Your task to perform on an android device: Open calendar and show me the first week of next month Image 0: 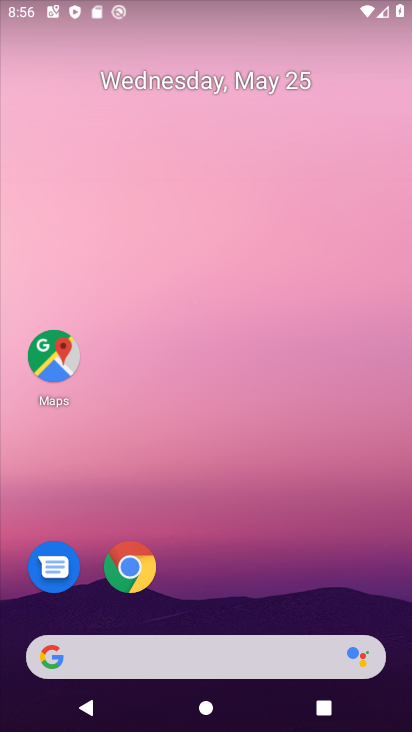
Step 0: drag from (251, 485) to (253, 62)
Your task to perform on an android device: Open calendar and show me the first week of next month Image 1: 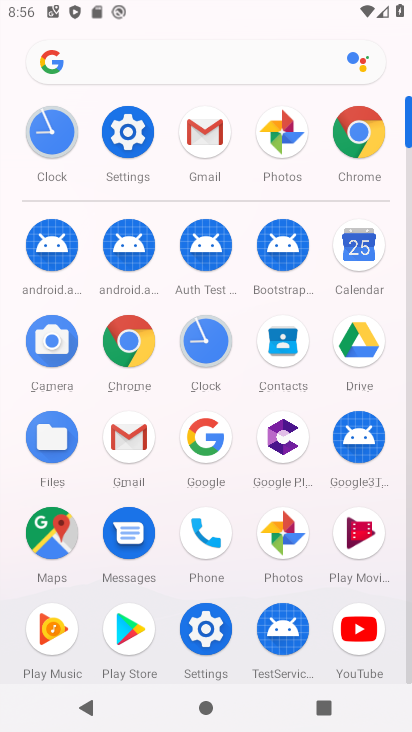
Step 1: click (360, 255)
Your task to perform on an android device: Open calendar and show me the first week of next month Image 2: 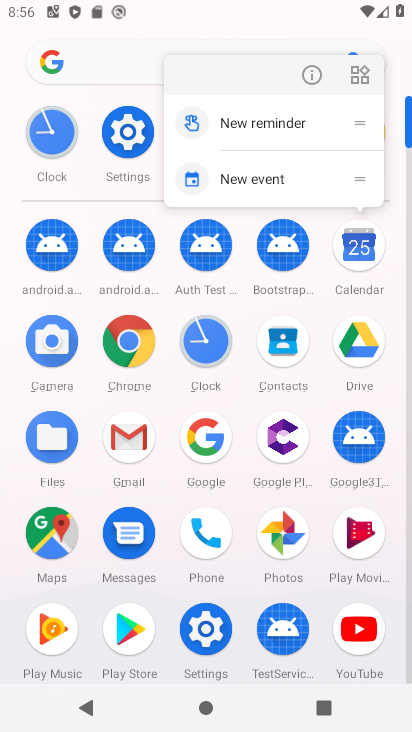
Step 2: click (362, 247)
Your task to perform on an android device: Open calendar and show me the first week of next month Image 3: 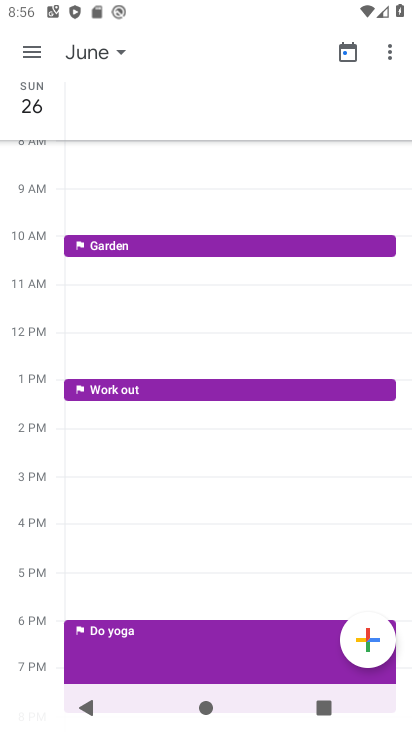
Step 3: click (28, 39)
Your task to perform on an android device: Open calendar and show me the first week of next month Image 4: 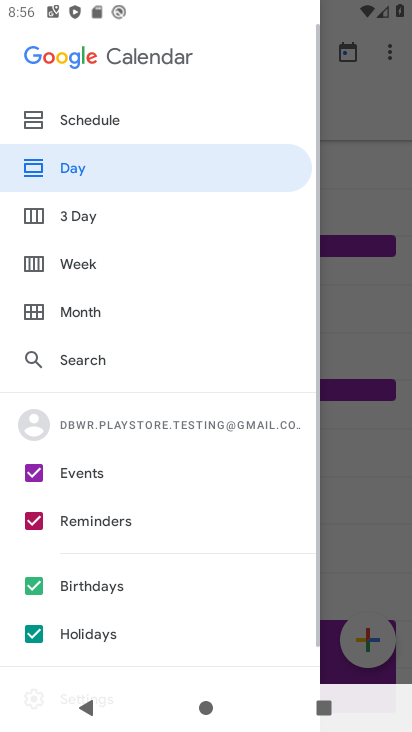
Step 4: click (31, 263)
Your task to perform on an android device: Open calendar and show me the first week of next month Image 5: 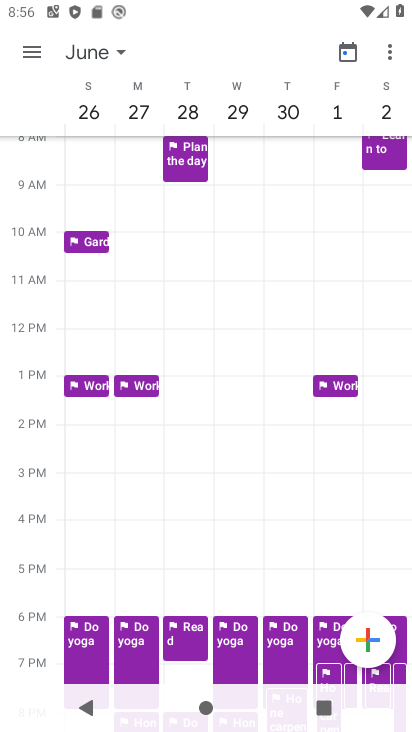
Step 5: task complete